Your task to perform on an android device: Open location settings Image 0: 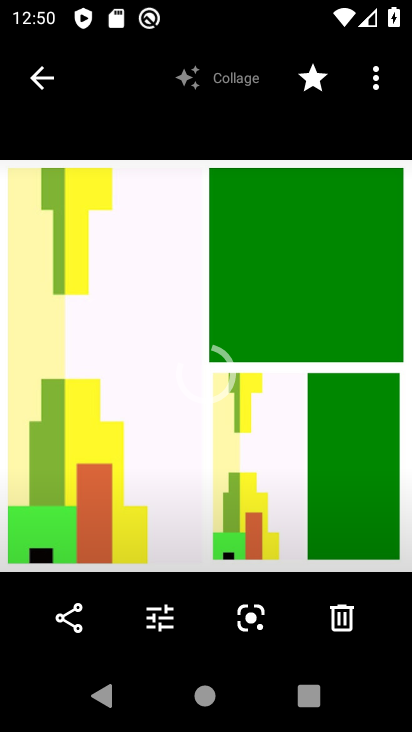
Step 0: press home button
Your task to perform on an android device: Open location settings Image 1: 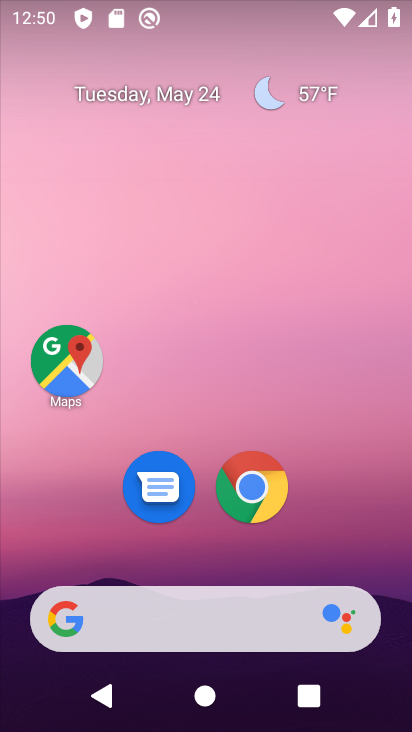
Step 1: drag from (226, 690) to (188, 210)
Your task to perform on an android device: Open location settings Image 2: 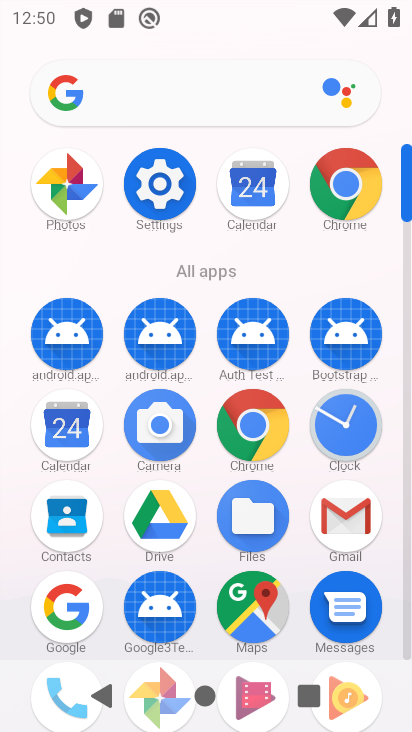
Step 2: click (154, 188)
Your task to perform on an android device: Open location settings Image 3: 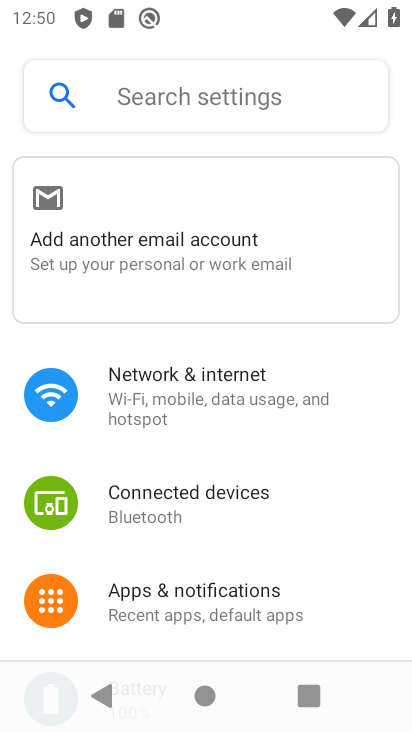
Step 3: drag from (269, 631) to (273, 253)
Your task to perform on an android device: Open location settings Image 4: 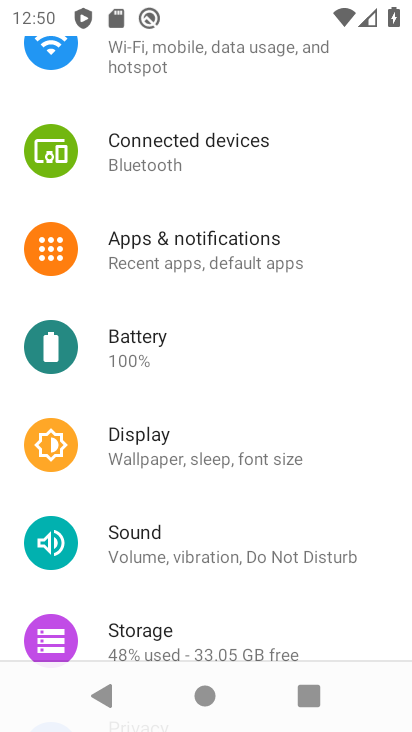
Step 4: drag from (187, 615) to (189, 245)
Your task to perform on an android device: Open location settings Image 5: 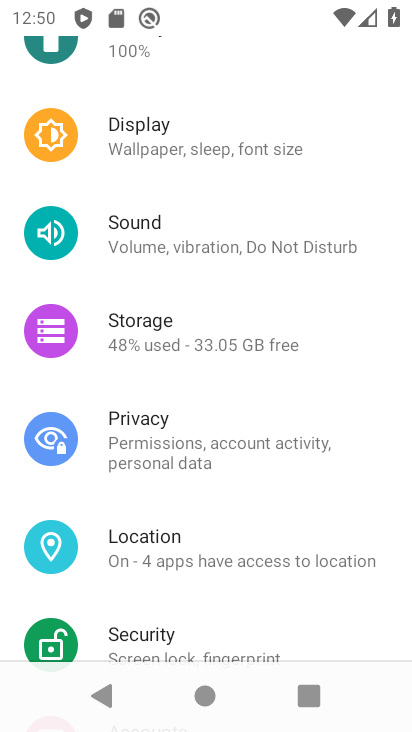
Step 5: click (148, 535)
Your task to perform on an android device: Open location settings Image 6: 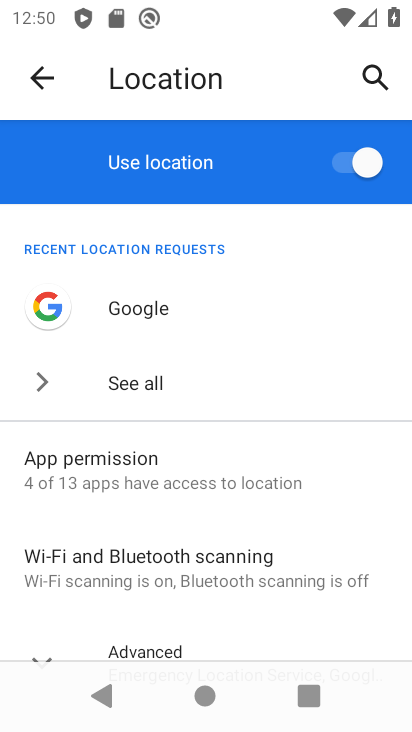
Step 6: task complete